Your task to perform on an android device: turn off javascript in the chrome app Image 0: 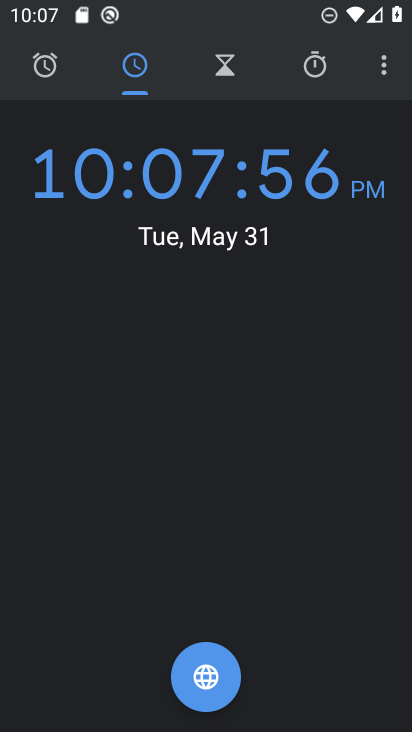
Step 0: press home button
Your task to perform on an android device: turn off javascript in the chrome app Image 1: 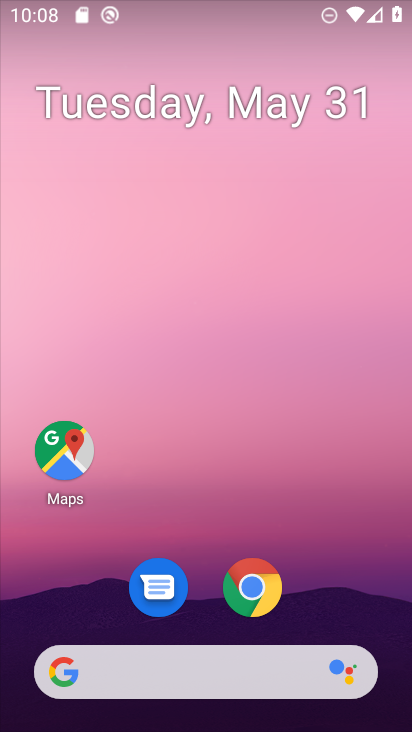
Step 1: click (250, 579)
Your task to perform on an android device: turn off javascript in the chrome app Image 2: 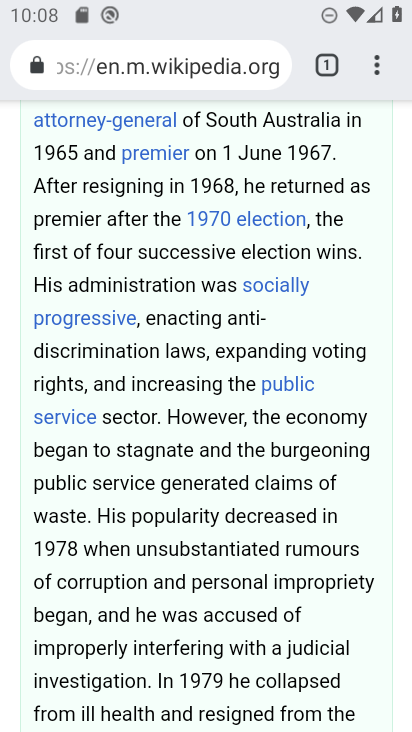
Step 2: click (379, 54)
Your task to perform on an android device: turn off javascript in the chrome app Image 3: 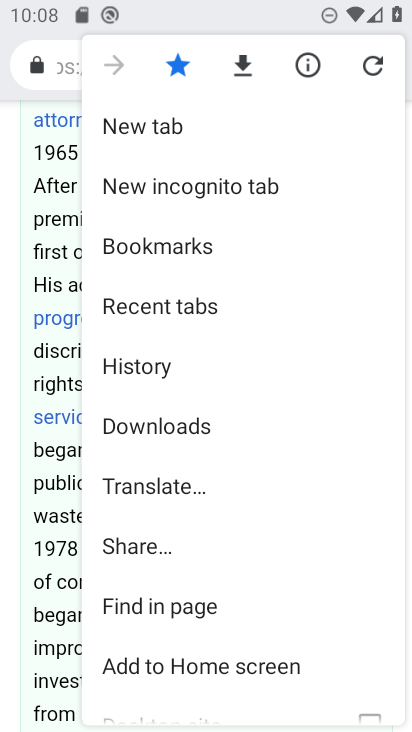
Step 3: drag from (237, 632) to (278, 83)
Your task to perform on an android device: turn off javascript in the chrome app Image 4: 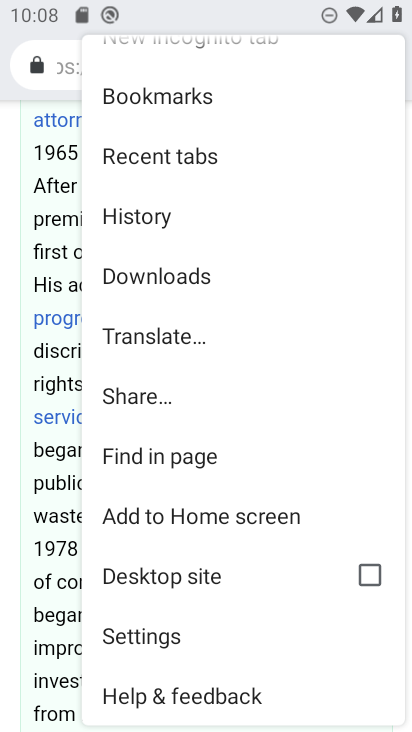
Step 4: click (190, 632)
Your task to perform on an android device: turn off javascript in the chrome app Image 5: 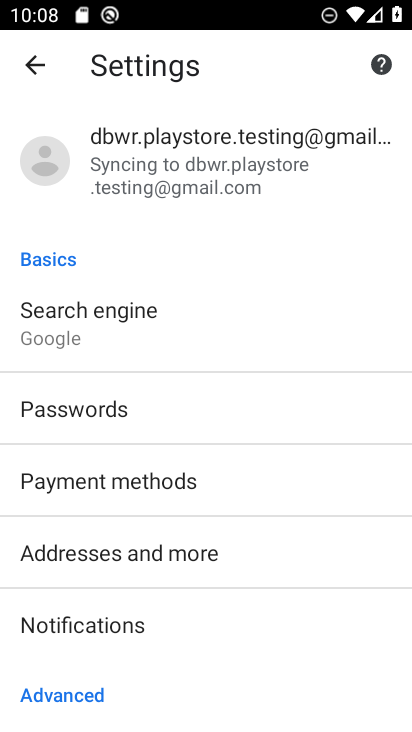
Step 5: drag from (224, 676) to (226, 145)
Your task to perform on an android device: turn off javascript in the chrome app Image 6: 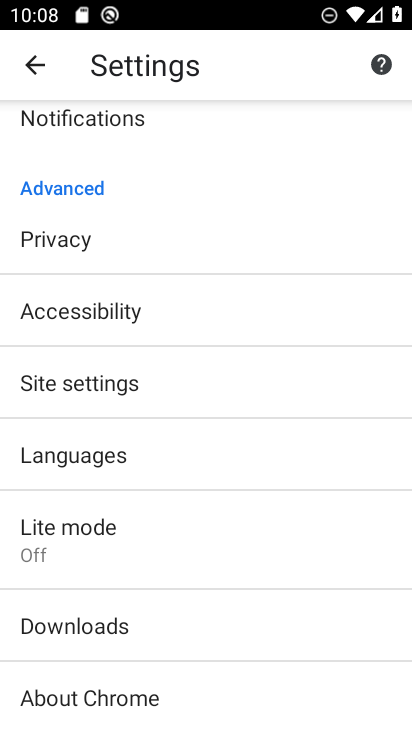
Step 6: click (164, 384)
Your task to perform on an android device: turn off javascript in the chrome app Image 7: 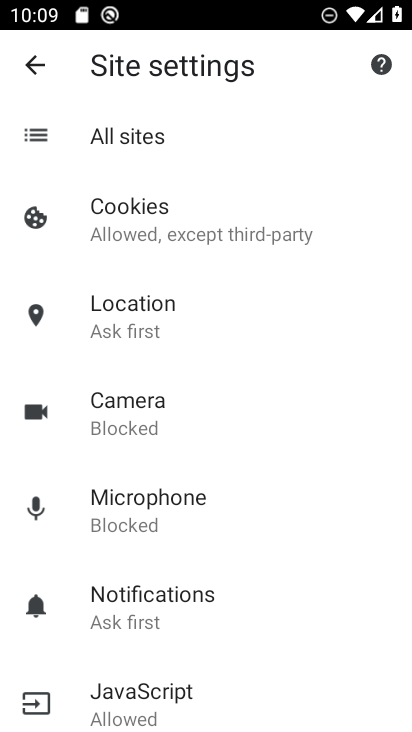
Step 7: click (208, 690)
Your task to perform on an android device: turn off javascript in the chrome app Image 8: 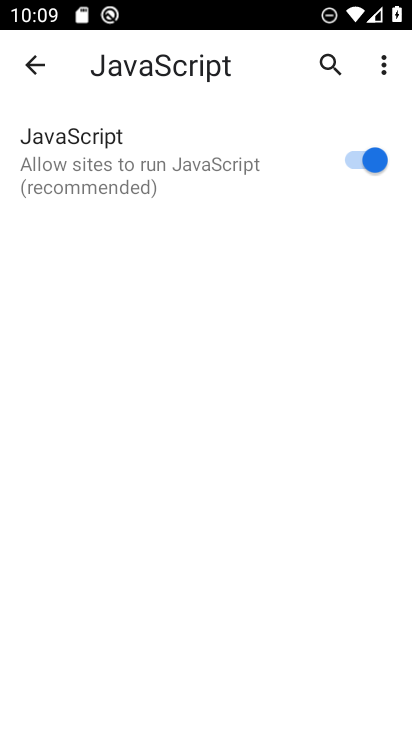
Step 8: click (360, 154)
Your task to perform on an android device: turn off javascript in the chrome app Image 9: 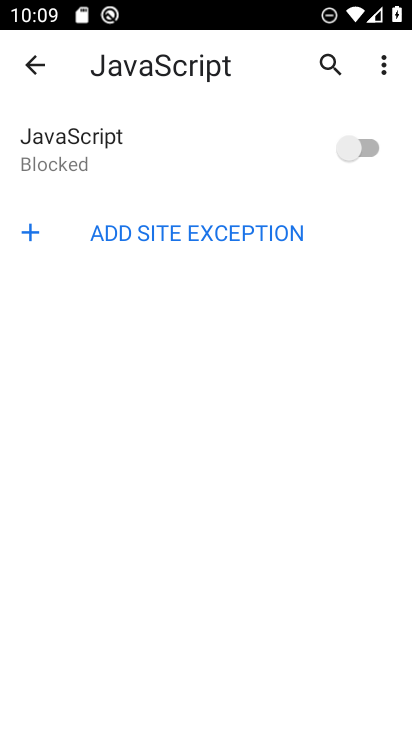
Step 9: task complete